Your task to perform on an android device: change alarm snooze length Image 0: 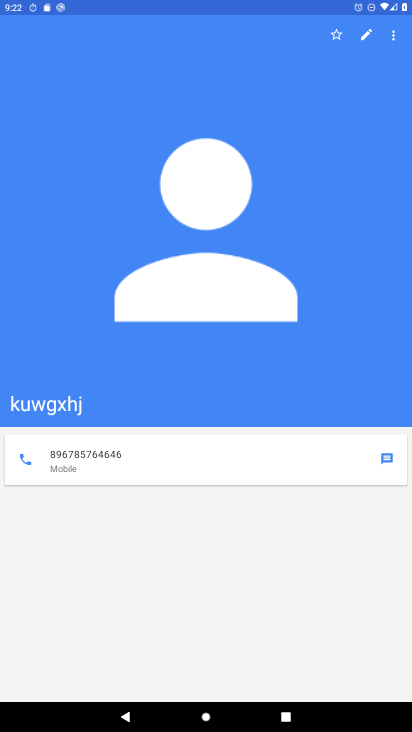
Step 0: press home button
Your task to perform on an android device: change alarm snooze length Image 1: 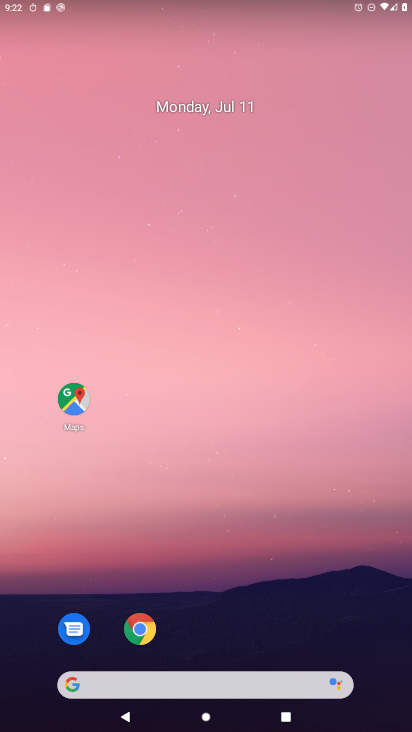
Step 1: drag from (213, 637) to (256, 117)
Your task to perform on an android device: change alarm snooze length Image 2: 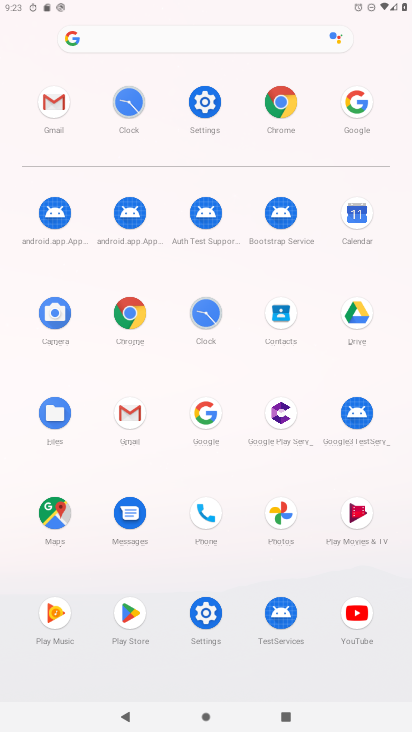
Step 2: click (201, 310)
Your task to perform on an android device: change alarm snooze length Image 3: 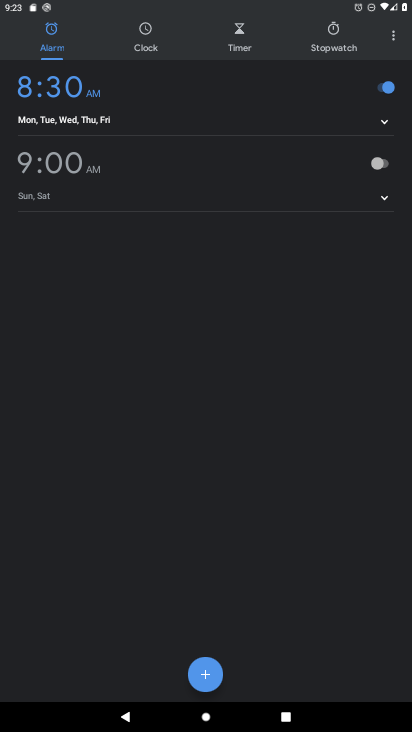
Step 3: click (390, 41)
Your task to perform on an android device: change alarm snooze length Image 4: 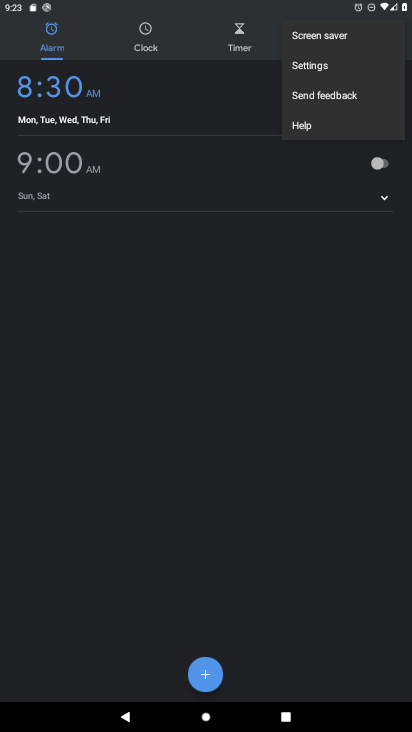
Step 4: click (313, 59)
Your task to perform on an android device: change alarm snooze length Image 5: 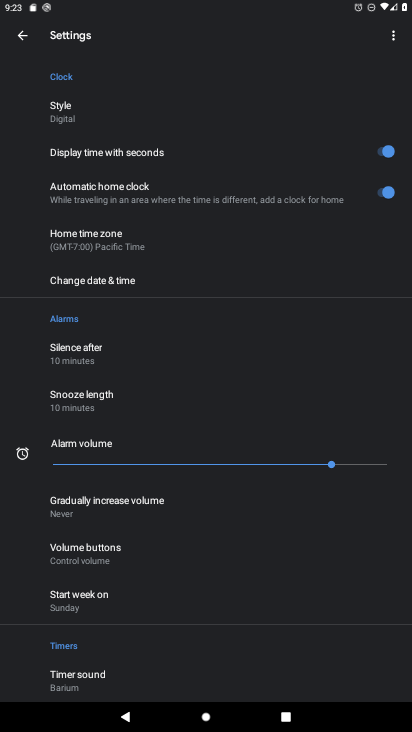
Step 5: click (102, 401)
Your task to perform on an android device: change alarm snooze length Image 6: 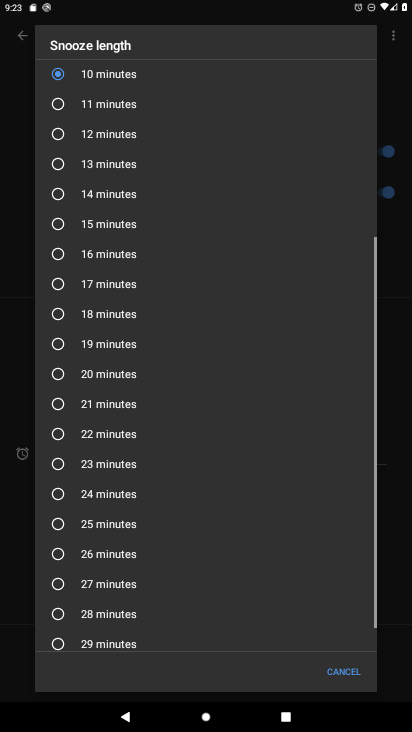
Step 6: click (58, 105)
Your task to perform on an android device: change alarm snooze length Image 7: 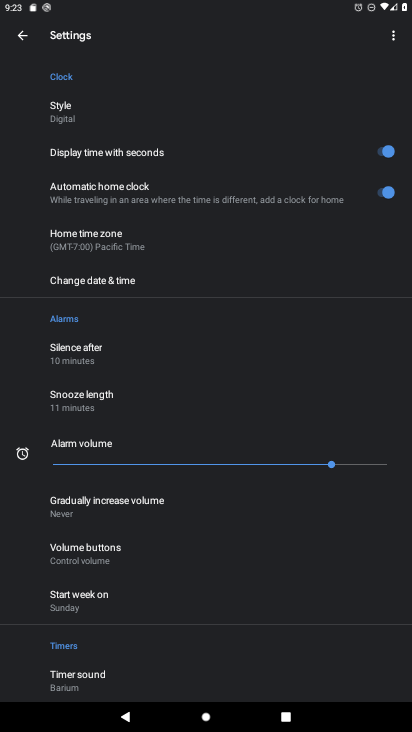
Step 7: task complete